Your task to perform on an android device: open a bookmark in the chrome app Image 0: 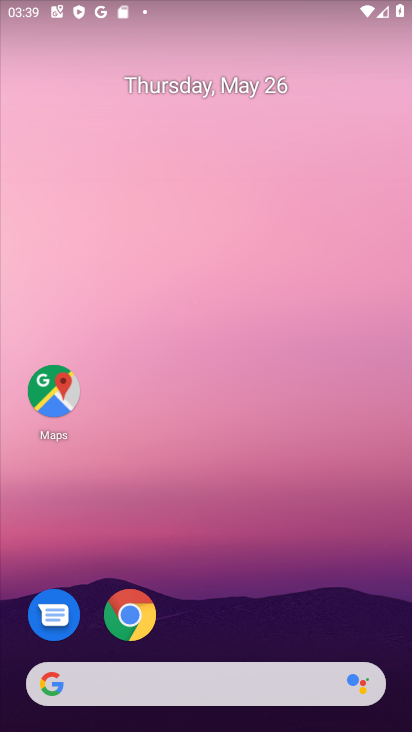
Step 0: click (133, 620)
Your task to perform on an android device: open a bookmark in the chrome app Image 1: 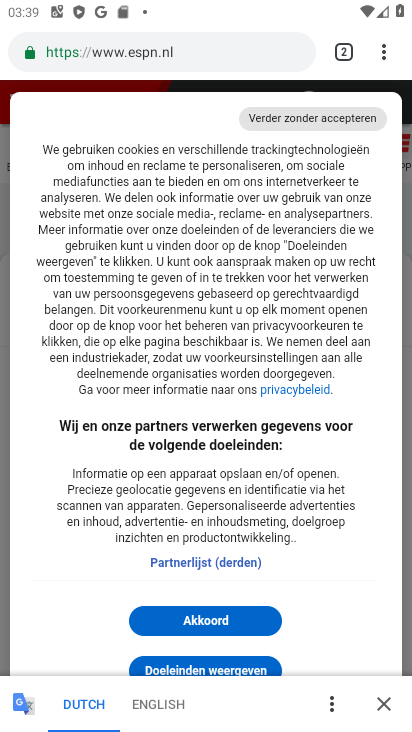
Step 1: click (379, 53)
Your task to perform on an android device: open a bookmark in the chrome app Image 2: 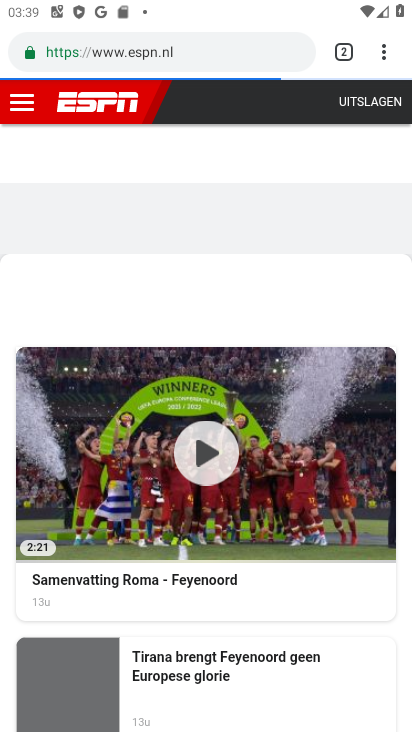
Step 2: click (386, 52)
Your task to perform on an android device: open a bookmark in the chrome app Image 3: 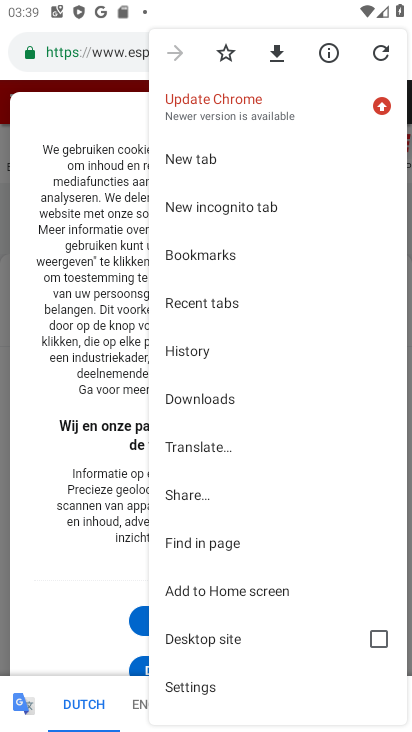
Step 3: click (195, 253)
Your task to perform on an android device: open a bookmark in the chrome app Image 4: 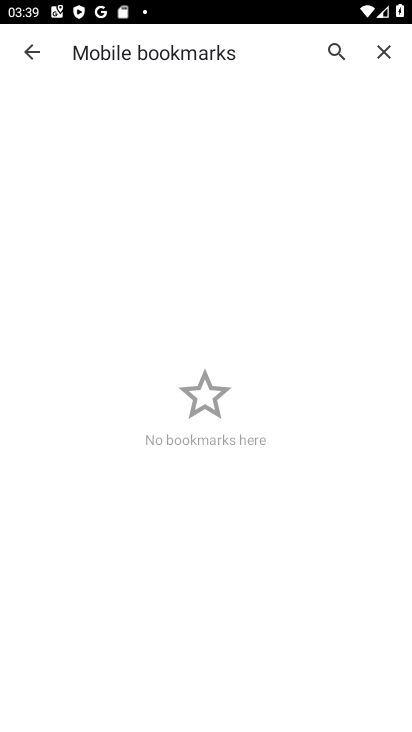
Step 4: task complete